Your task to perform on an android device: make emails show in primary in the gmail app Image 0: 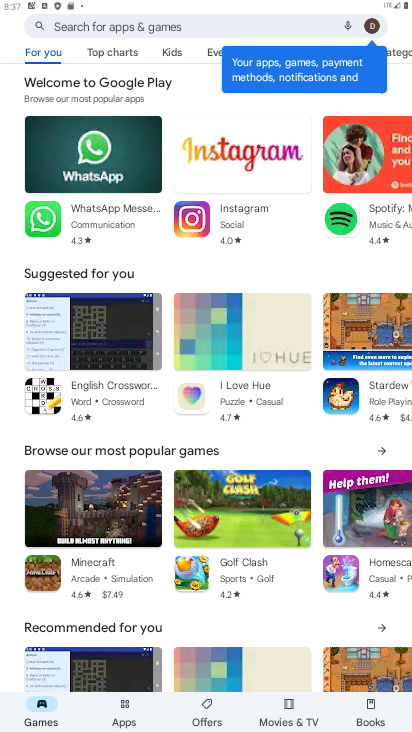
Step 0: press home button
Your task to perform on an android device: make emails show in primary in the gmail app Image 1: 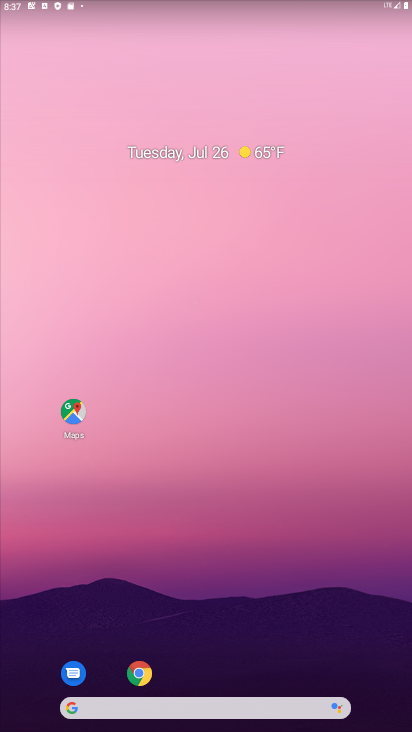
Step 1: drag from (212, 663) to (216, 162)
Your task to perform on an android device: make emails show in primary in the gmail app Image 2: 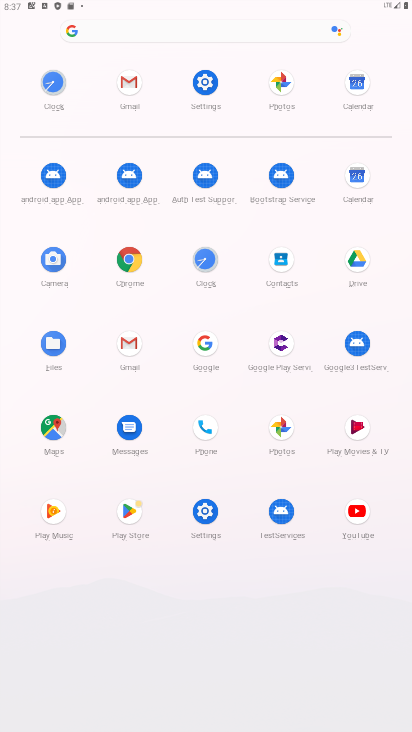
Step 2: click (139, 97)
Your task to perform on an android device: make emails show in primary in the gmail app Image 3: 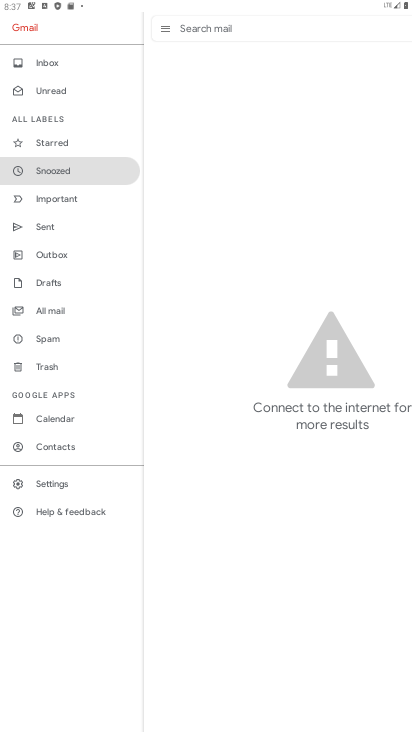
Step 3: click (36, 484)
Your task to perform on an android device: make emails show in primary in the gmail app Image 4: 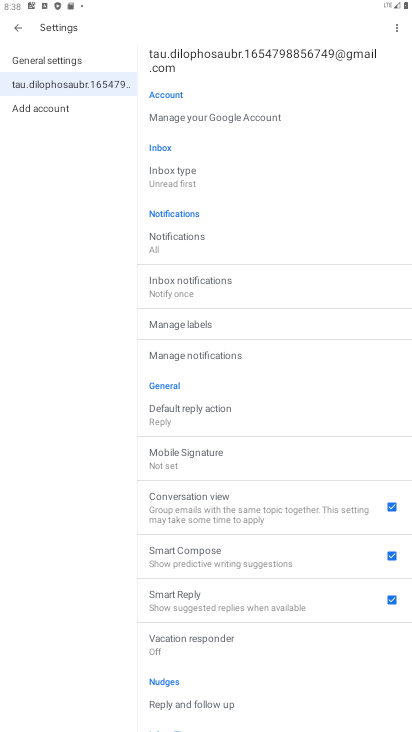
Step 4: click (189, 182)
Your task to perform on an android device: make emails show in primary in the gmail app Image 5: 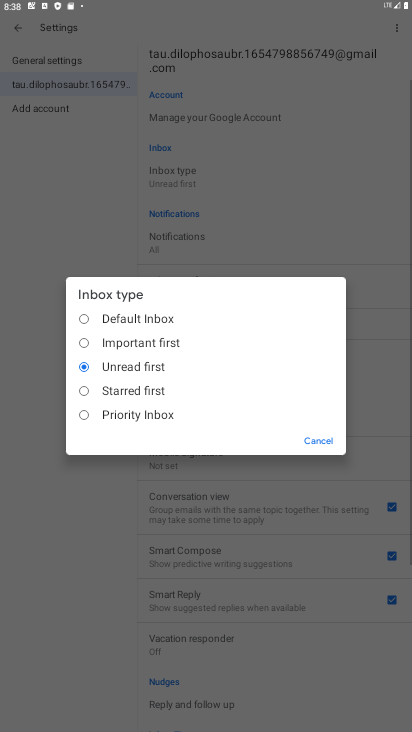
Step 5: click (92, 317)
Your task to perform on an android device: make emails show in primary in the gmail app Image 6: 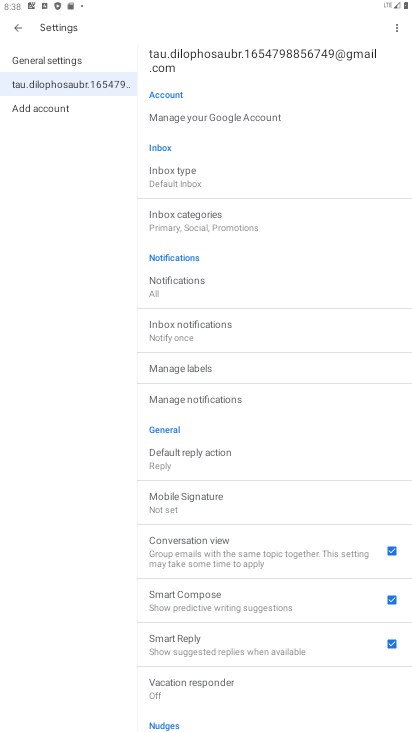
Step 6: task complete